Your task to perform on an android device: make emails show in primary in the gmail app Image 0: 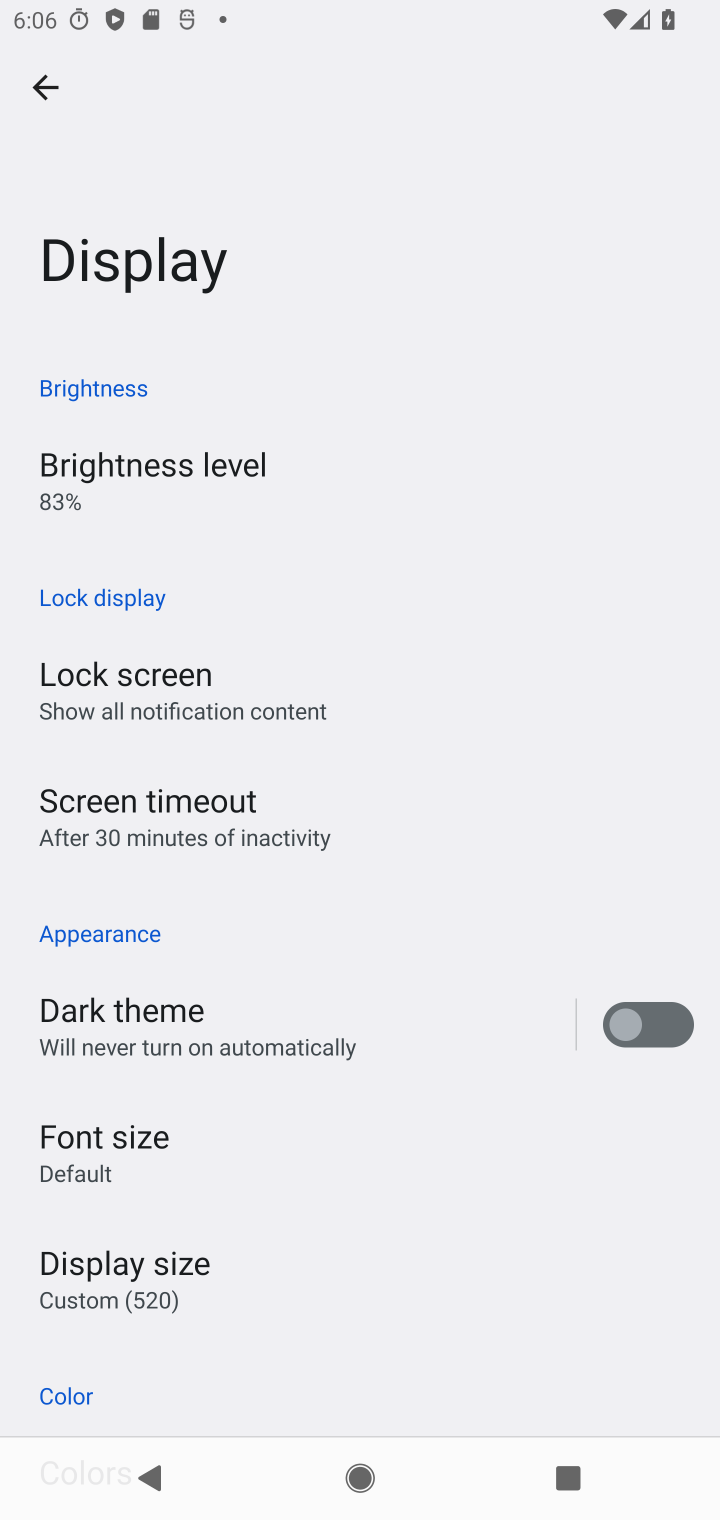
Step 0: press home button
Your task to perform on an android device: make emails show in primary in the gmail app Image 1: 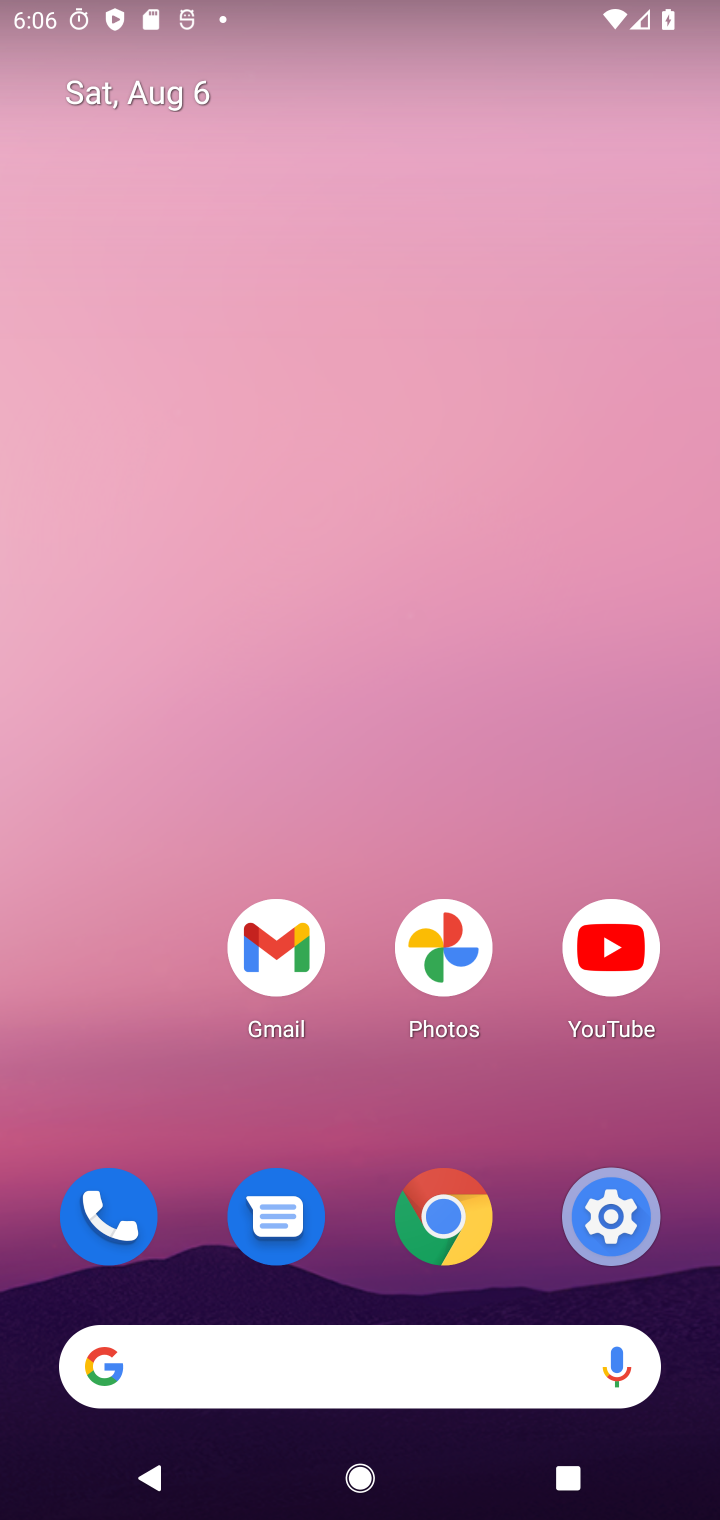
Step 1: drag from (377, 1078) to (422, 31)
Your task to perform on an android device: make emails show in primary in the gmail app Image 2: 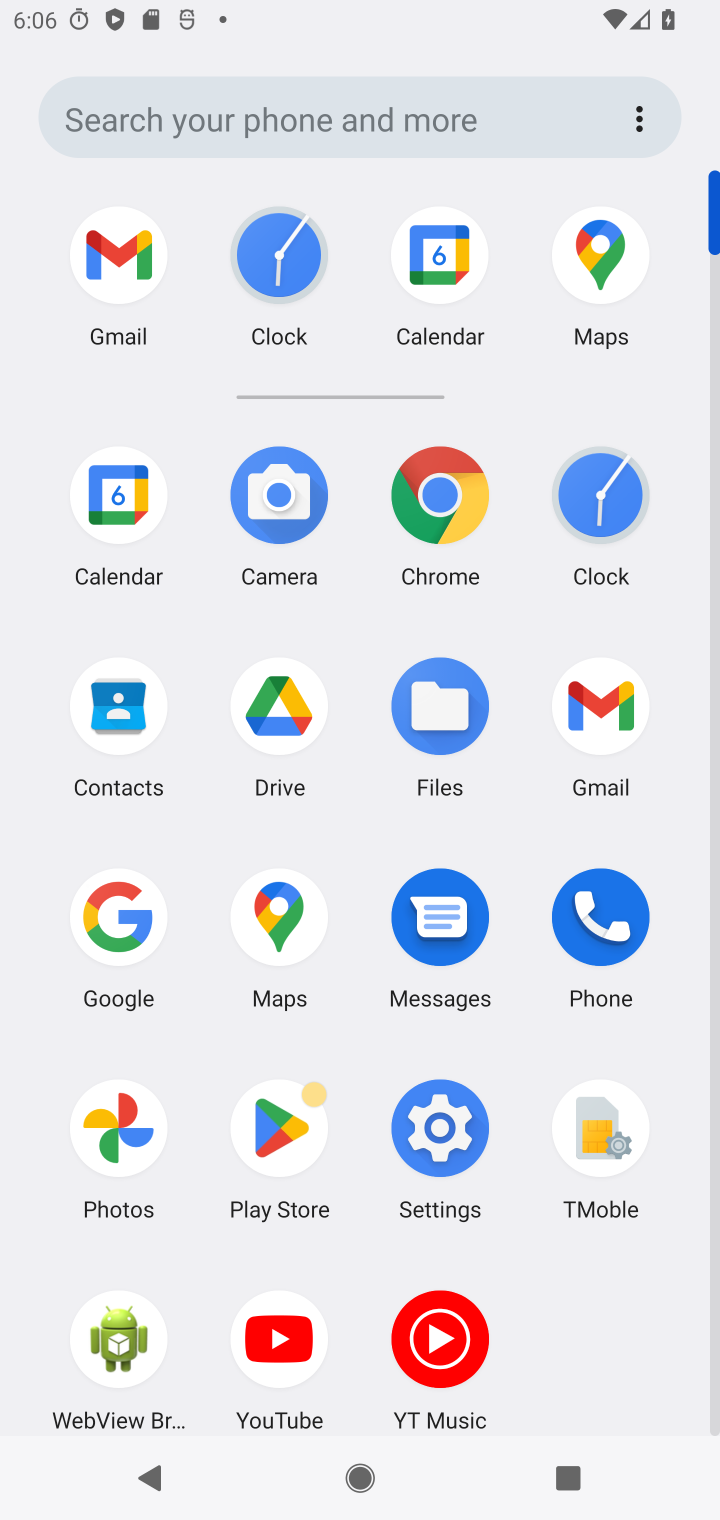
Step 2: click (128, 264)
Your task to perform on an android device: make emails show in primary in the gmail app Image 3: 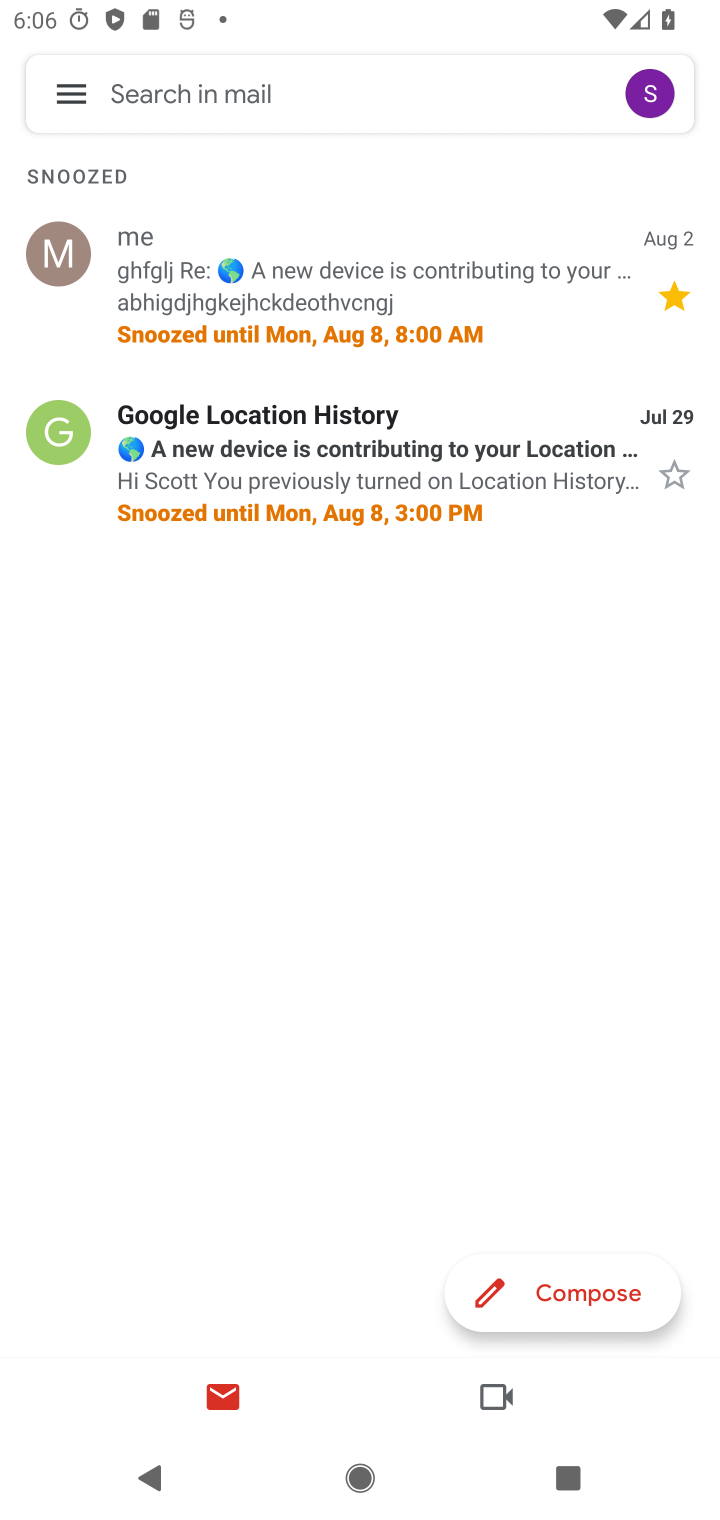
Step 3: click (74, 92)
Your task to perform on an android device: make emails show in primary in the gmail app Image 4: 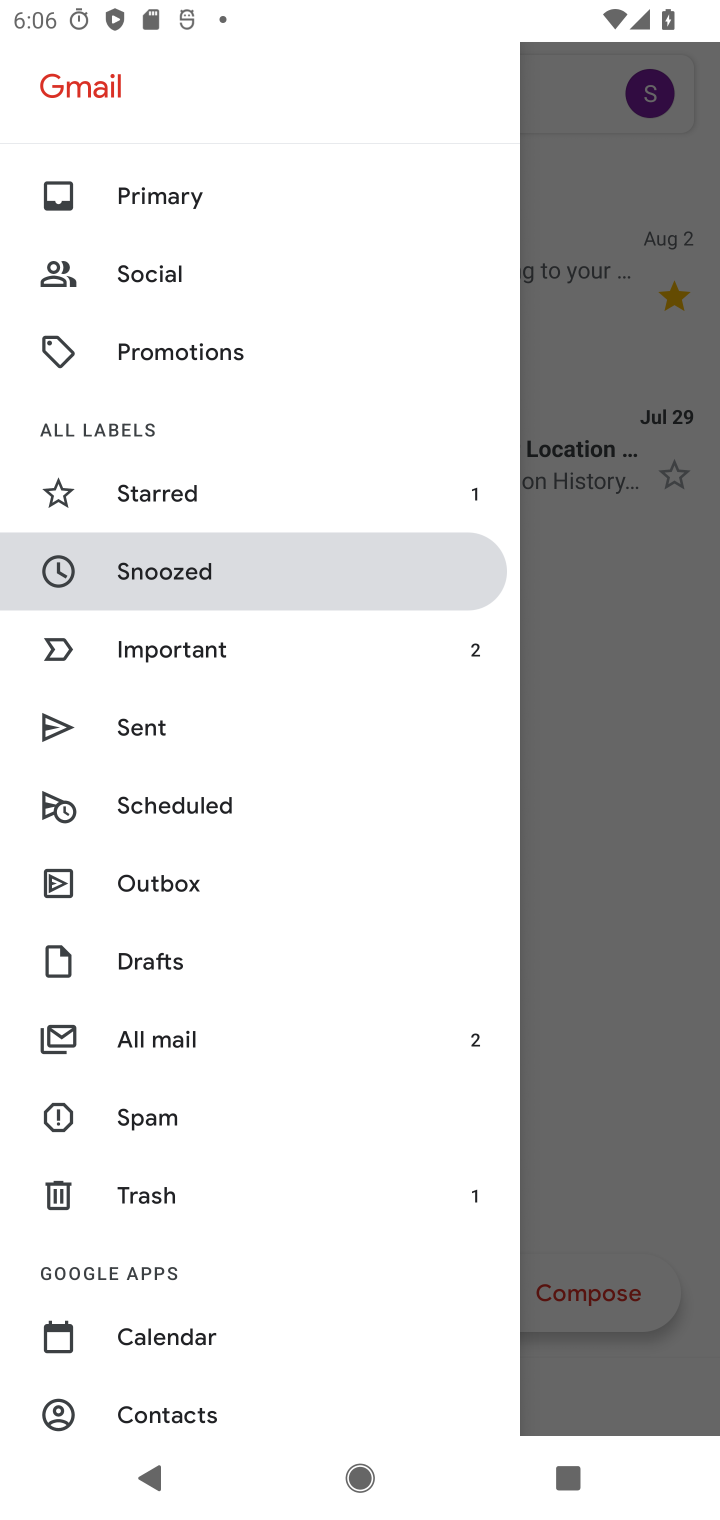
Step 4: drag from (255, 1321) to (287, 312)
Your task to perform on an android device: make emails show in primary in the gmail app Image 5: 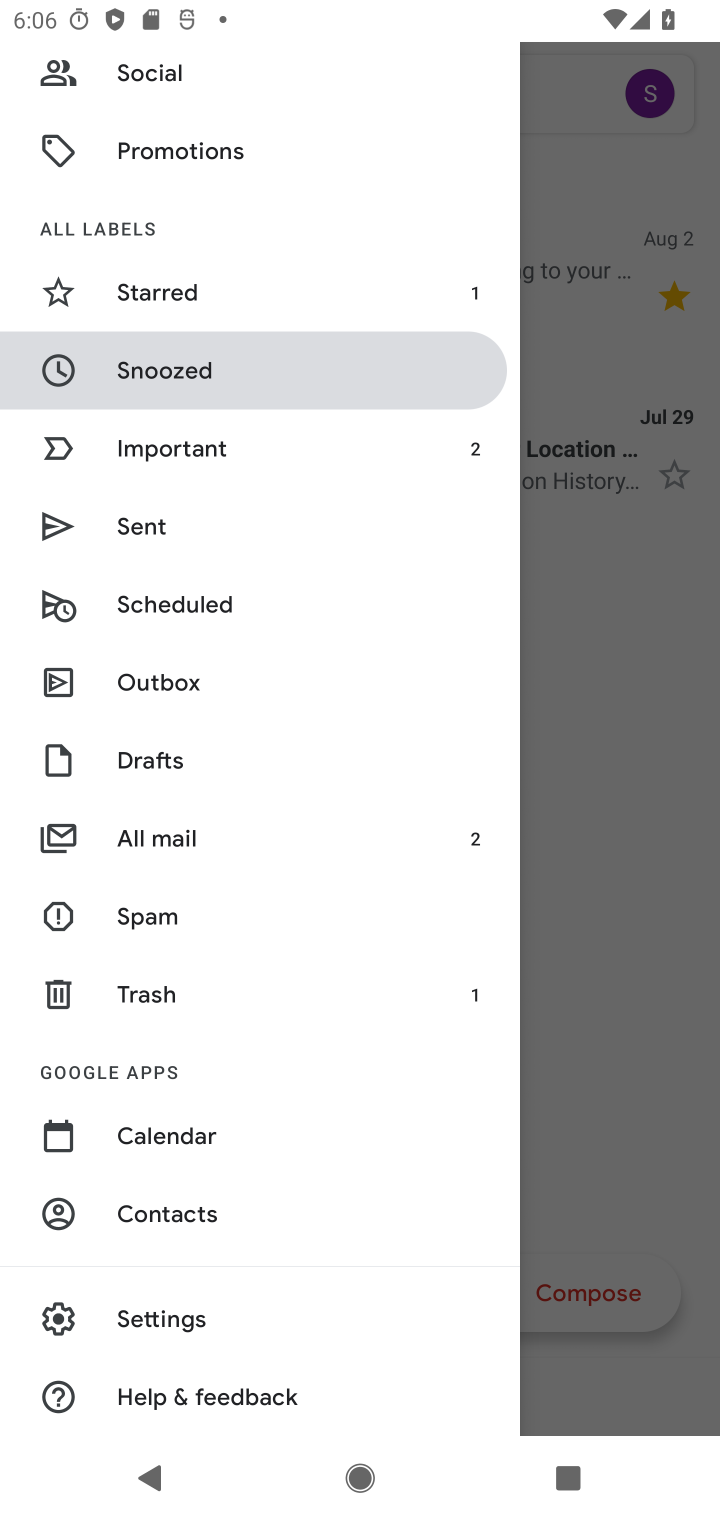
Step 5: click (158, 1316)
Your task to perform on an android device: make emails show in primary in the gmail app Image 6: 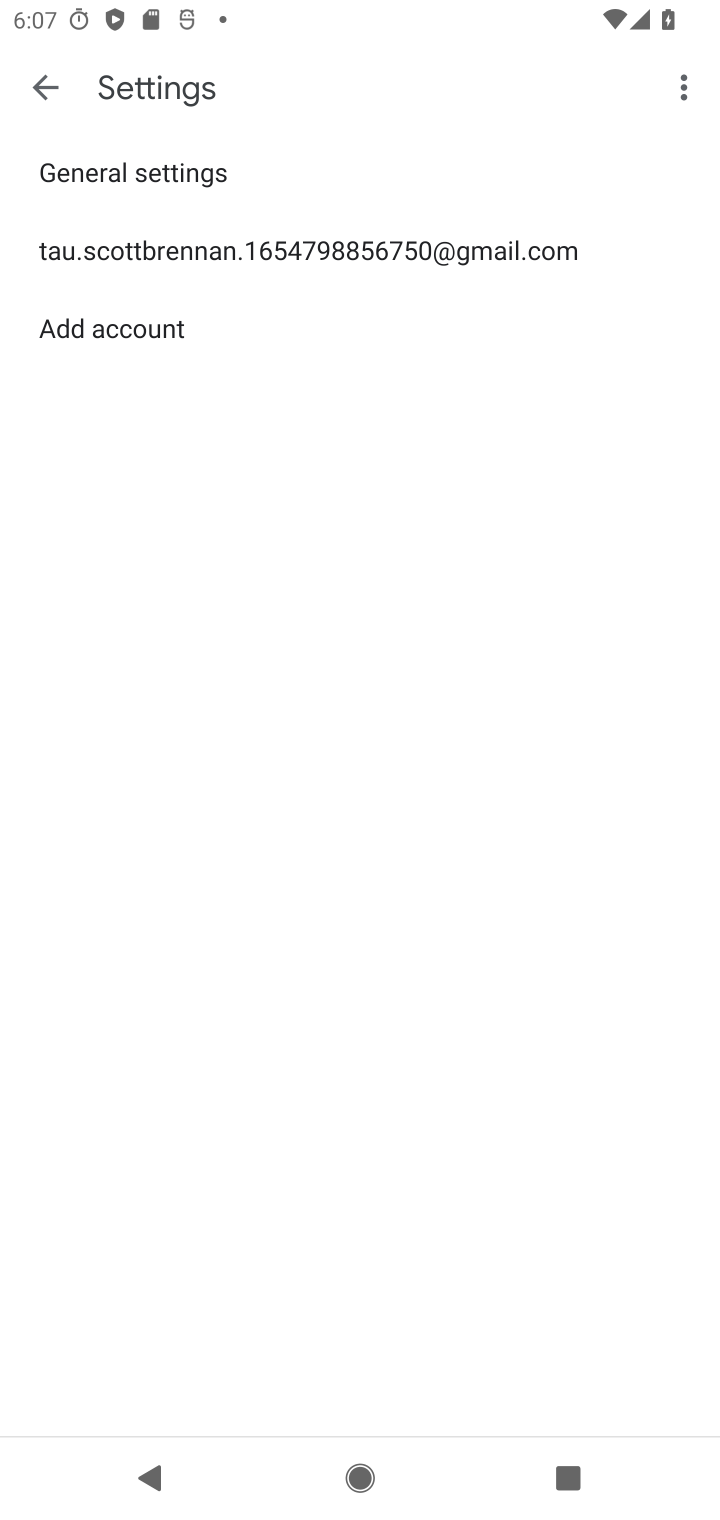
Step 6: click (221, 245)
Your task to perform on an android device: make emails show in primary in the gmail app Image 7: 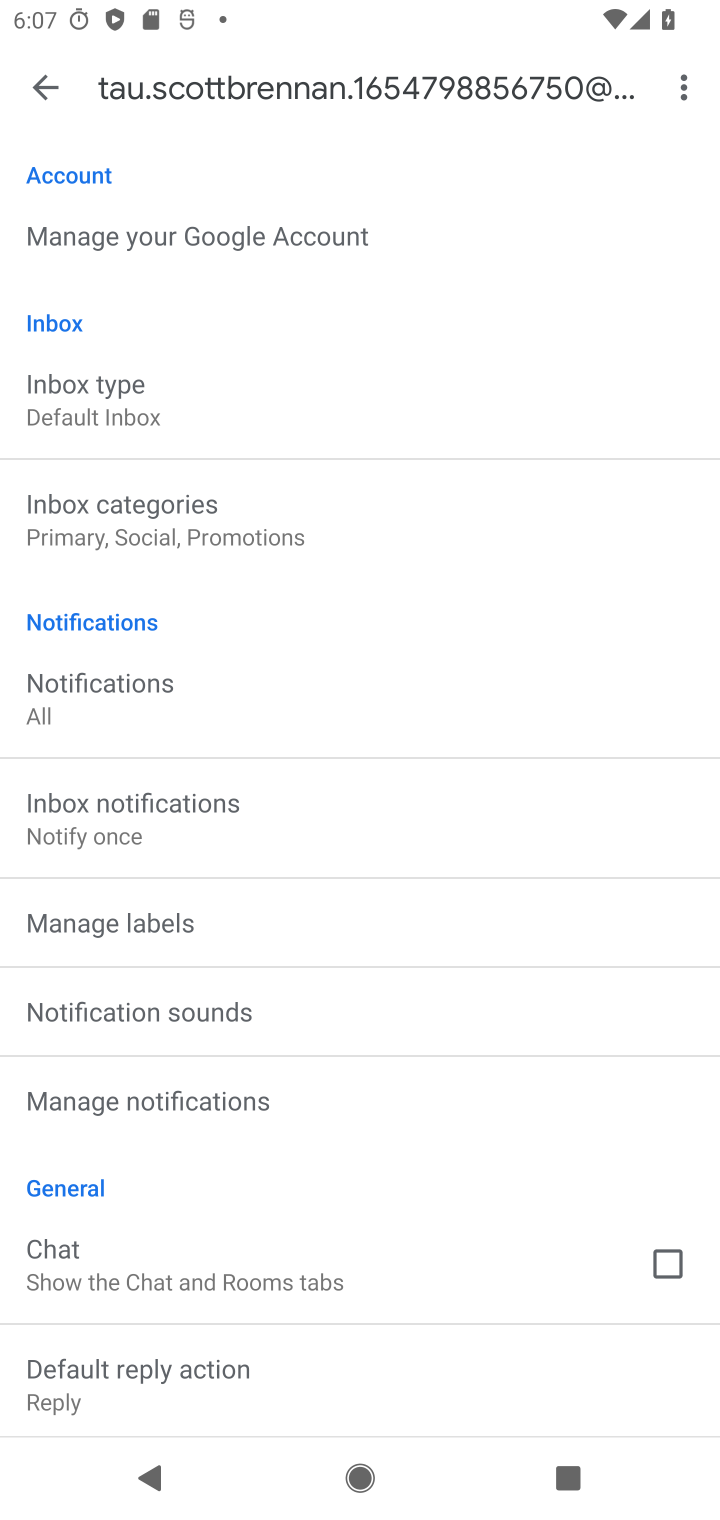
Step 7: click (137, 534)
Your task to perform on an android device: make emails show in primary in the gmail app Image 8: 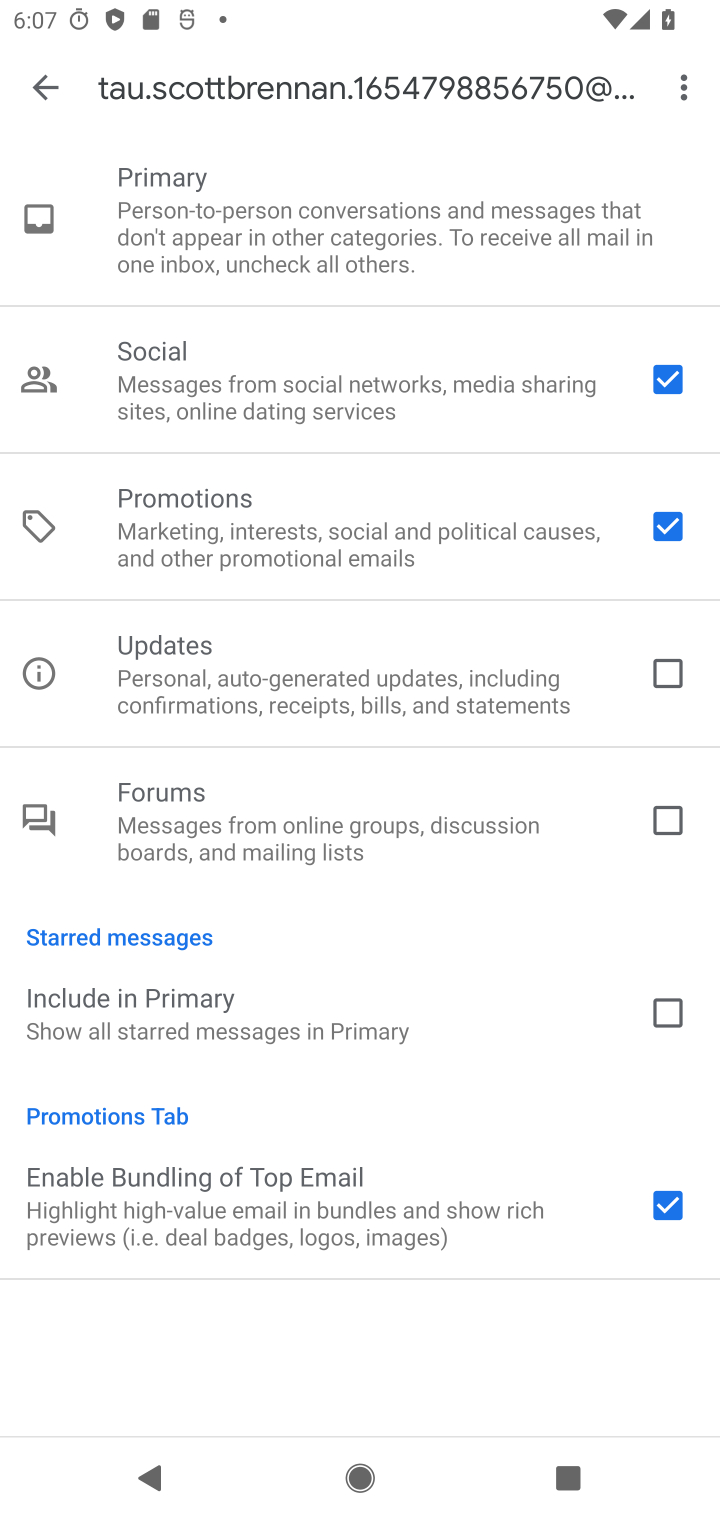
Step 8: task complete